Your task to perform on an android device: find snoozed emails in the gmail app Image 0: 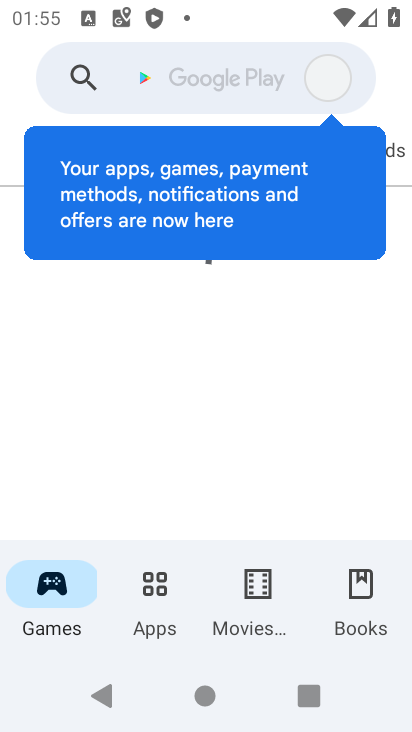
Step 0: press home button
Your task to perform on an android device: find snoozed emails in the gmail app Image 1: 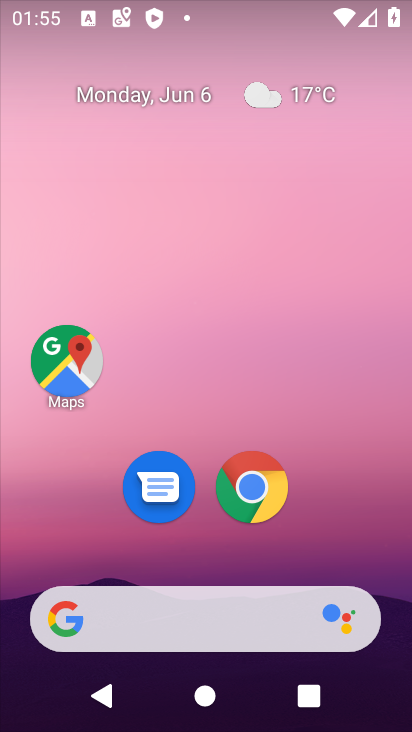
Step 1: drag from (389, 614) to (380, 33)
Your task to perform on an android device: find snoozed emails in the gmail app Image 2: 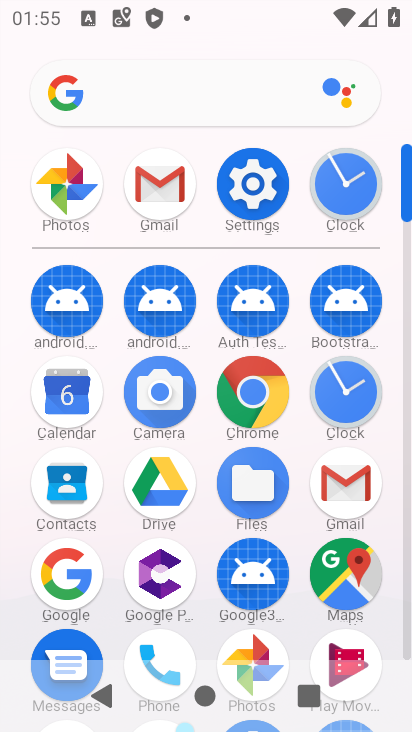
Step 2: click (408, 629)
Your task to perform on an android device: find snoozed emails in the gmail app Image 3: 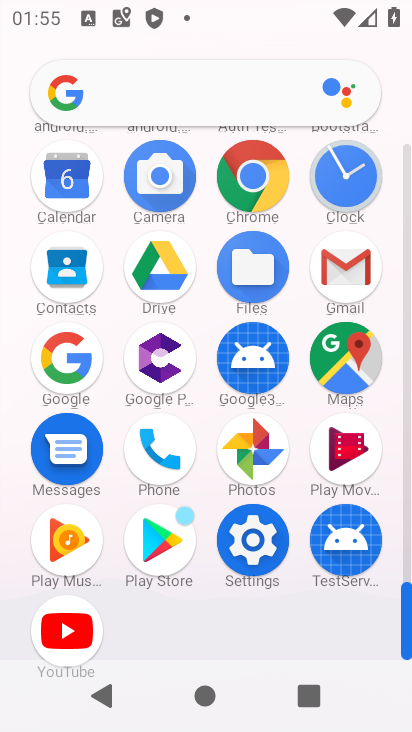
Step 3: click (341, 262)
Your task to perform on an android device: find snoozed emails in the gmail app Image 4: 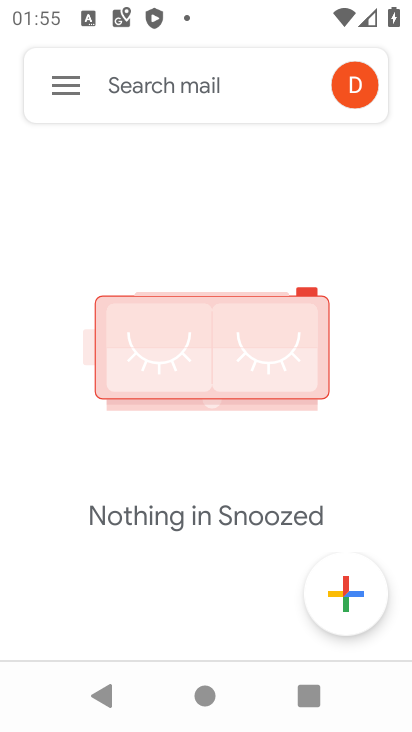
Step 4: click (72, 88)
Your task to perform on an android device: find snoozed emails in the gmail app Image 5: 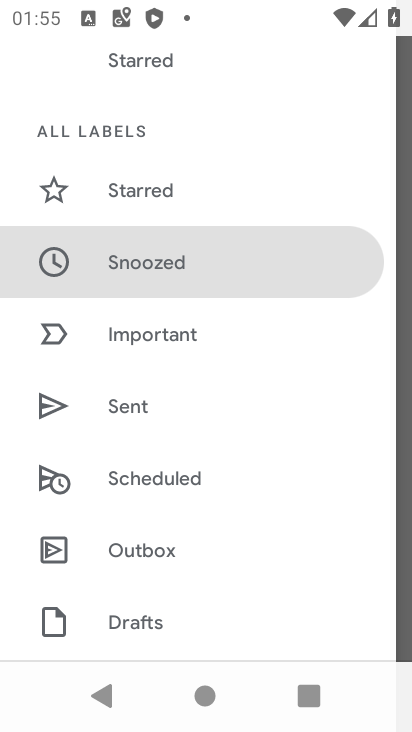
Step 5: click (190, 264)
Your task to perform on an android device: find snoozed emails in the gmail app Image 6: 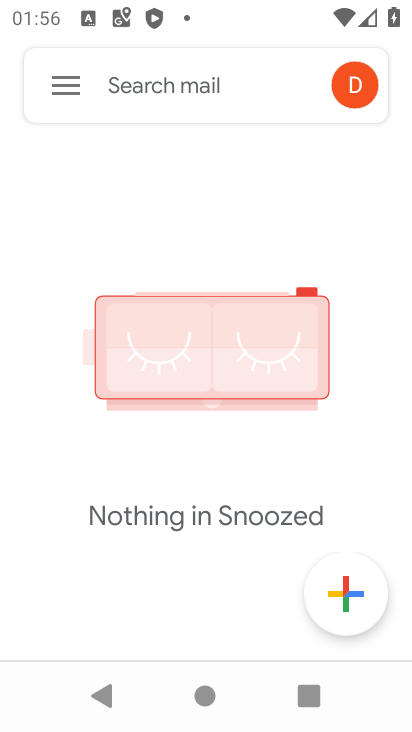
Step 6: task complete